Your task to perform on an android device: find which apps use the phone's location Image 0: 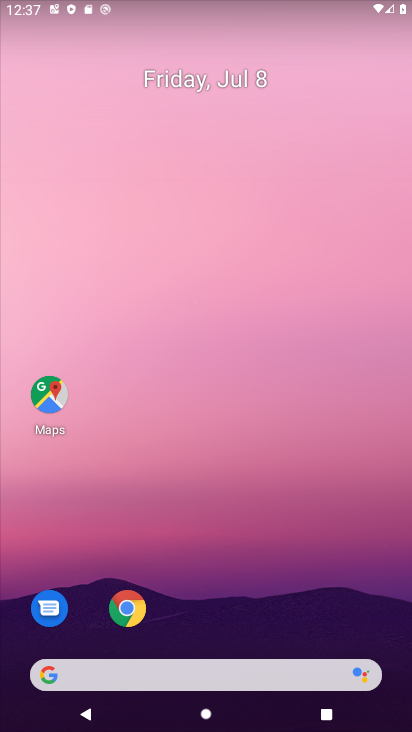
Step 0: drag from (282, 632) to (303, 65)
Your task to perform on an android device: find which apps use the phone's location Image 1: 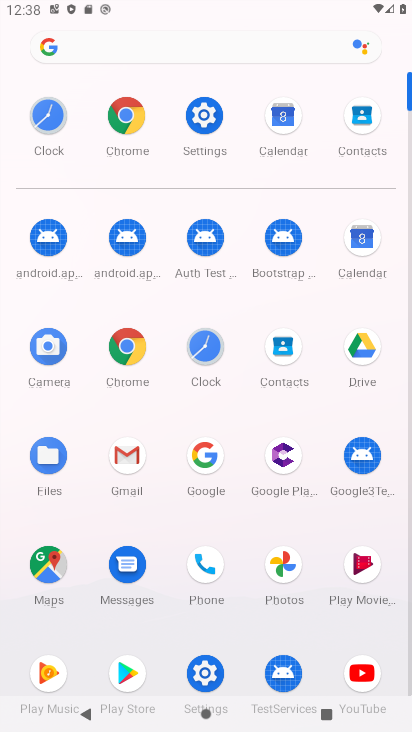
Step 1: click (207, 112)
Your task to perform on an android device: find which apps use the phone's location Image 2: 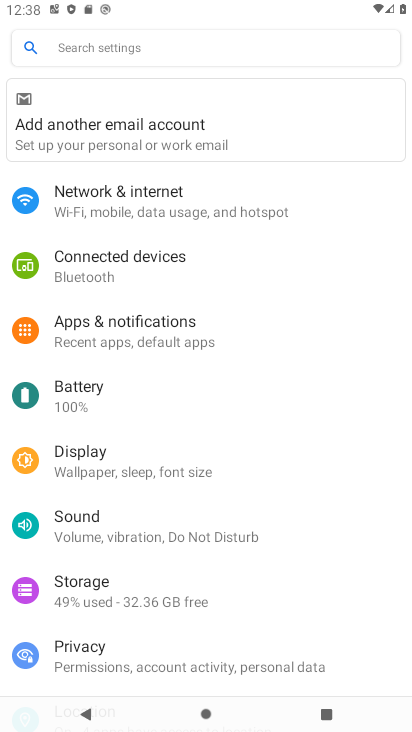
Step 2: drag from (166, 594) to (174, 355)
Your task to perform on an android device: find which apps use the phone's location Image 3: 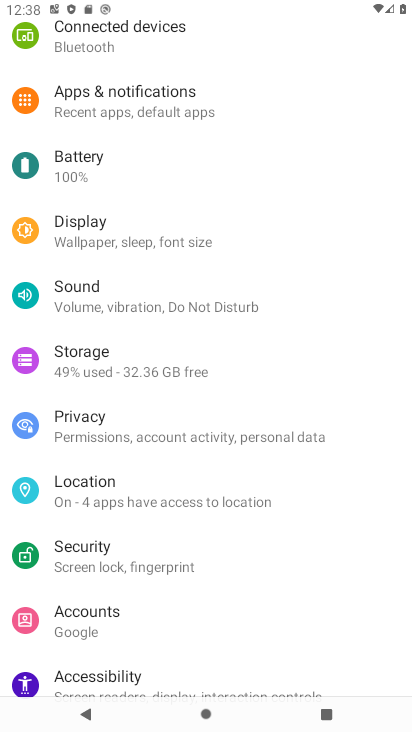
Step 3: click (181, 493)
Your task to perform on an android device: find which apps use the phone's location Image 4: 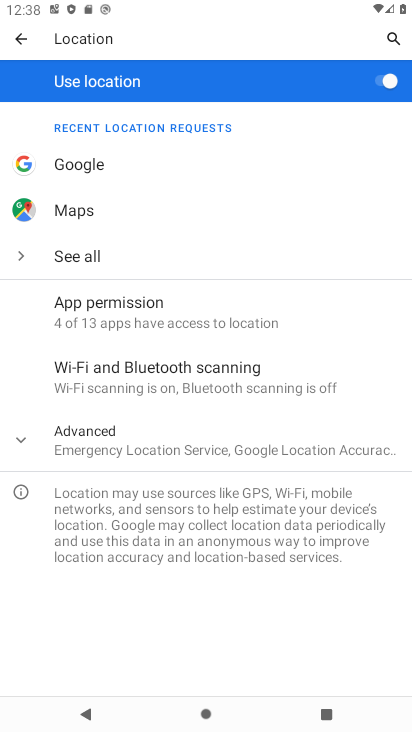
Step 4: task complete